Your task to perform on an android device: Open calendar and show me the fourth week of next month Image 0: 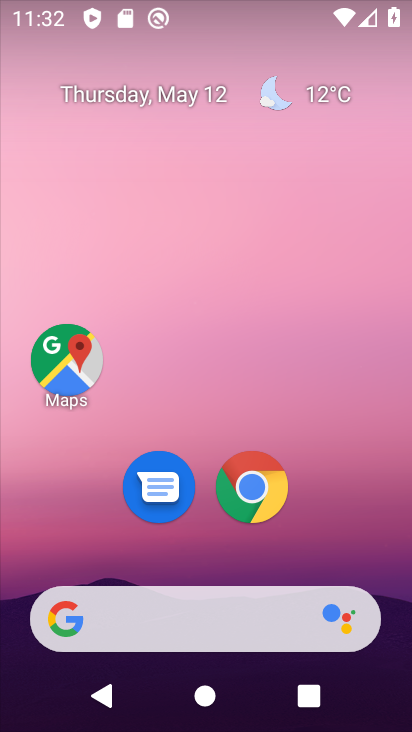
Step 0: click (317, 38)
Your task to perform on an android device: Open calendar and show me the fourth week of next month Image 1: 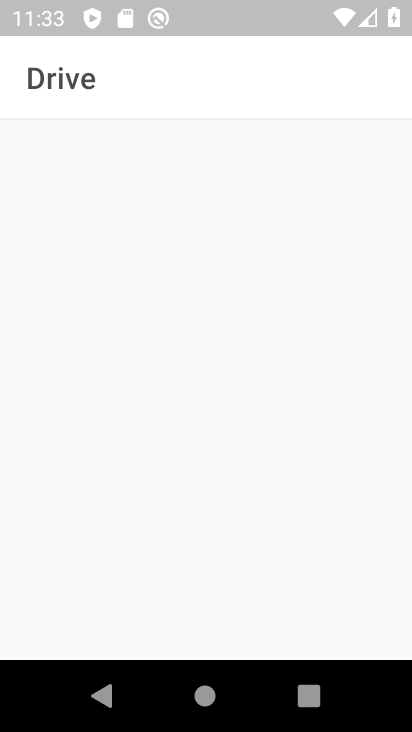
Step 1: press back button
Your task to perform on an android device: Open calendar and show me the fourth week of next month Image 2: 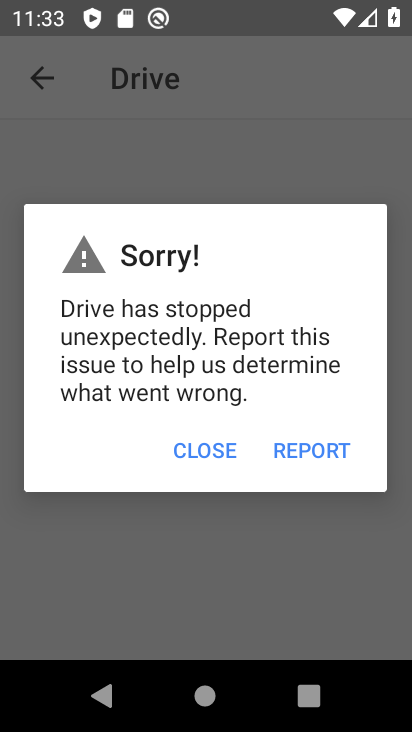
Step 2: click (217, 449)
Your task to perform on an android device: Open calendar and show me the fourth week of next month Image 3: 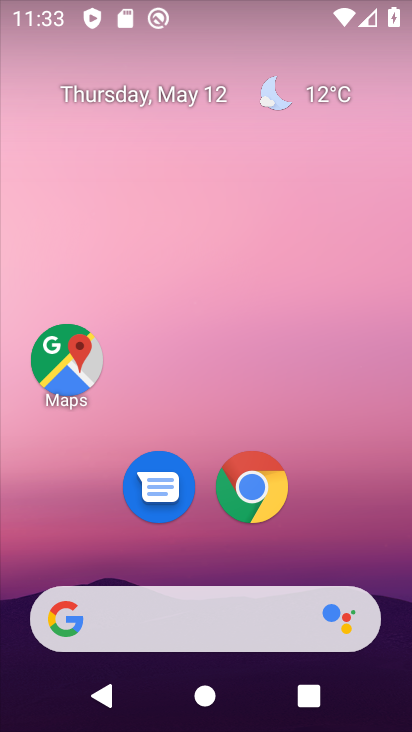
Step 3: drag from (169, 570) to (287, 66)
Your task to perform on an android device: Open calendar and show me the fourth week of next month Image 4: 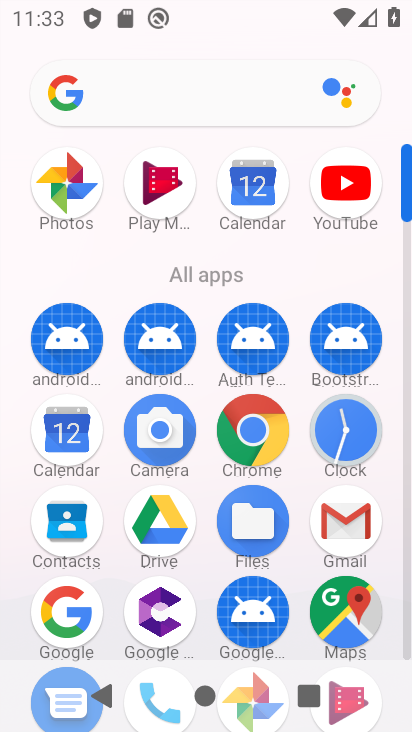
Step 4: click (61, 442)
Your task to perform on an android device: Open calendar and show me the fourth week of next month Image 5: 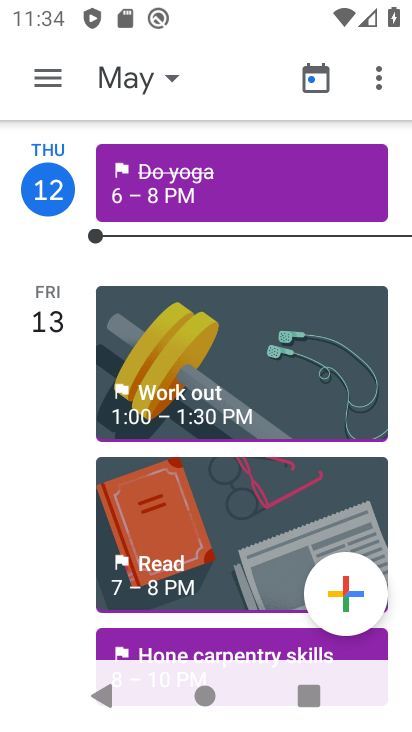
Step 5: click (145, 76)
Your task to perform on an android device: Open calendar and show me the fourth week of next month Image 6: 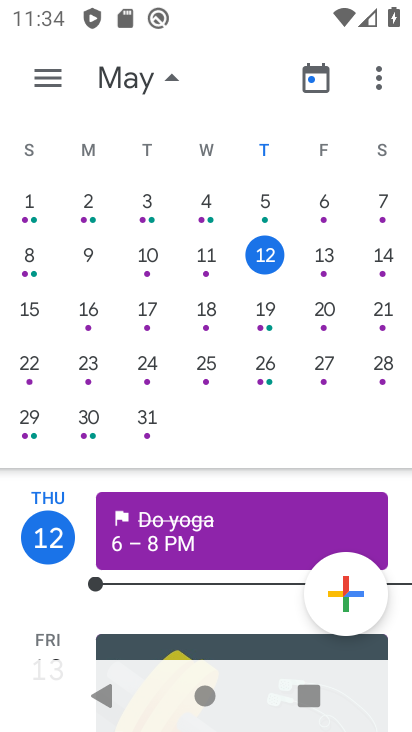
Step 6: drag from (368, 291) to (11, 284)
Your task to perform on an android device: Open calendar and show me the fourth week of next month Image 7: 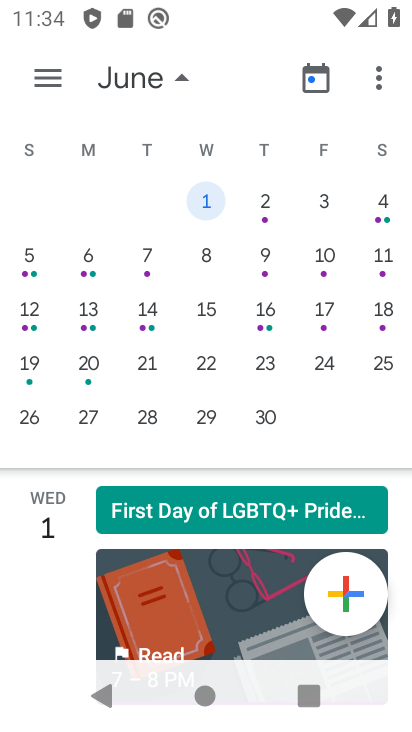
Step 7: click (87, 361)
Your task to perform on an android device: Open calendar and show me the fourth week of next month Image 8: 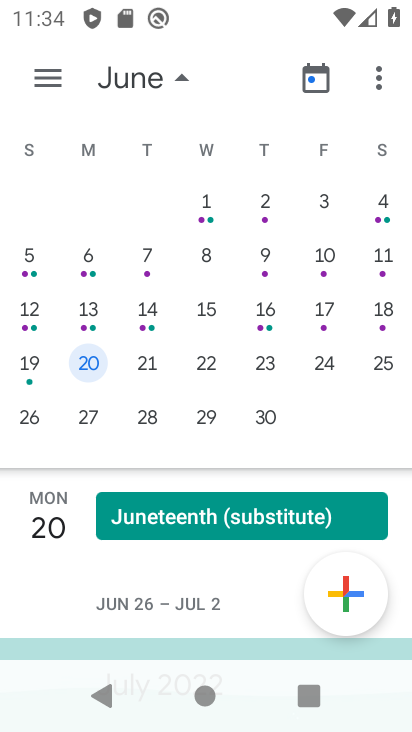
Step 8: task complete